Your task to perform on an android device: delete the emails in spam in the gmail app Image 0: 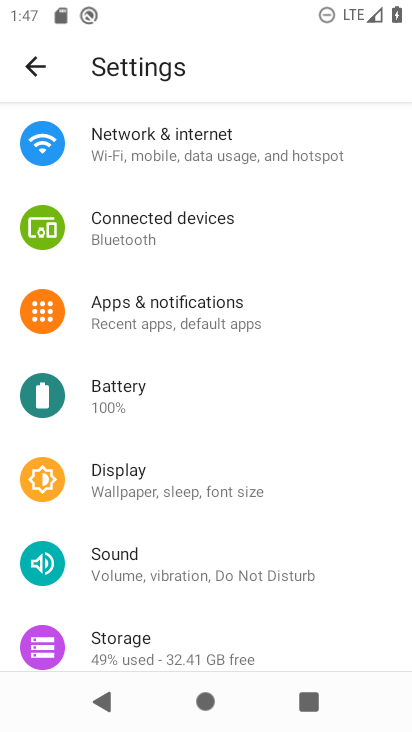
Step 0: press home button
Your task to perform on an android device: delete the emails in spam in the gmail app Image 1: 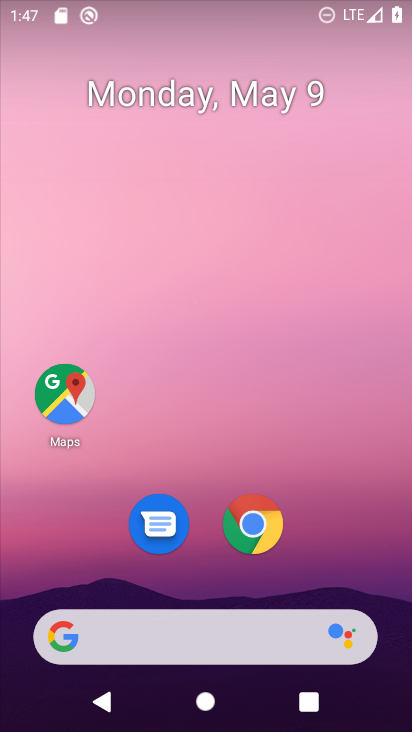
Step 1: drag from (319, 539) to (306, 21)
Your task to perform on an android device: delete the emails in spam in the gmail app Image 2: 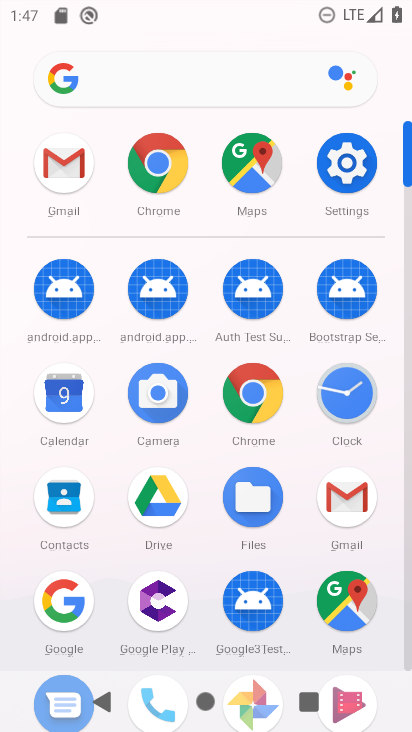
Step 2: click (55, 156)
Your task to perform on an android device: delete the emails in spam in the gmail app Image 3: 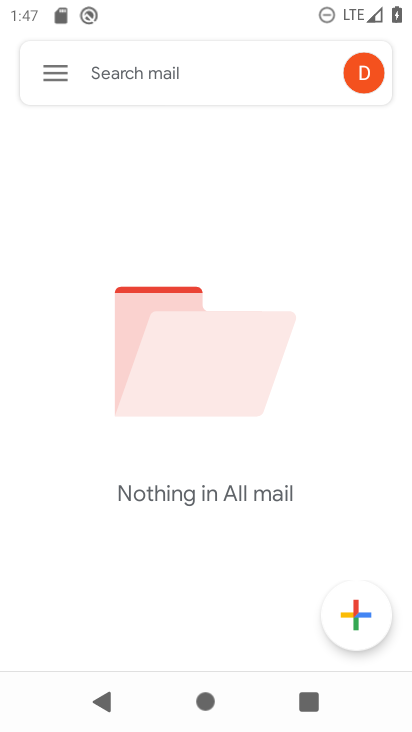
Step 3: task complete